Your task to perform on an android device: Go to network settings Image 0: 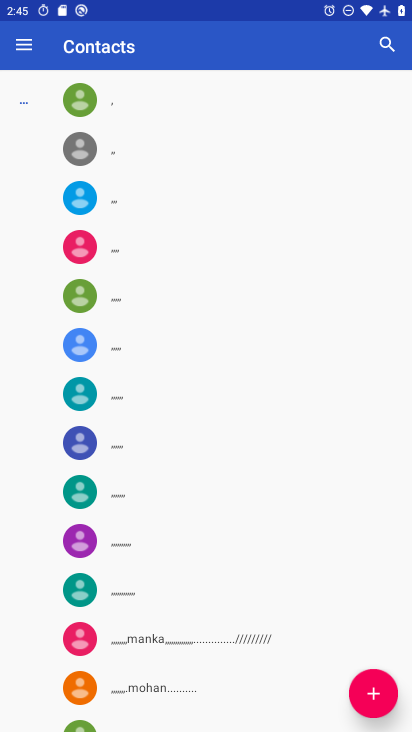
Step 0: press home button
Your task to perform on an android device: Go to network settings Image 1: 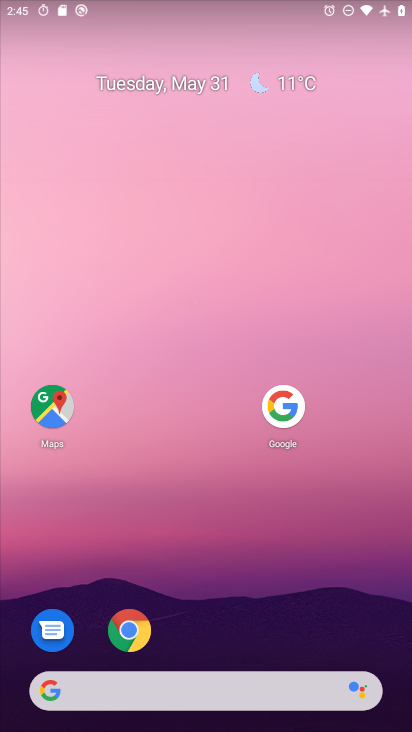
Step 1: drag from (132, 680) to (257, 93)
Your task to perform on an android device: Go to network settings Image 2: 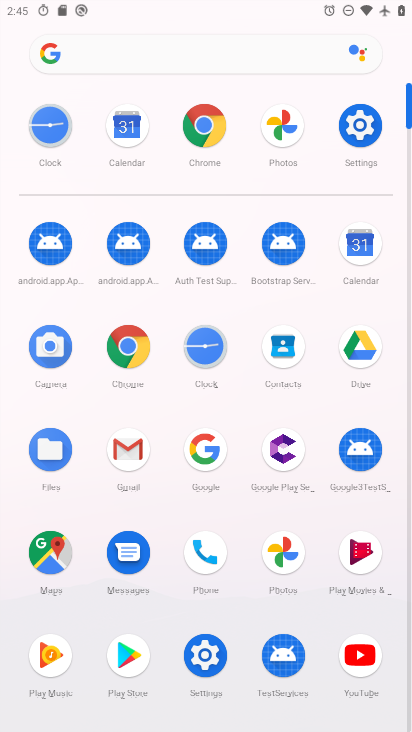
Step 2: click (358, 115)
Your task to perform on an android device: Go to network settings Image 3: 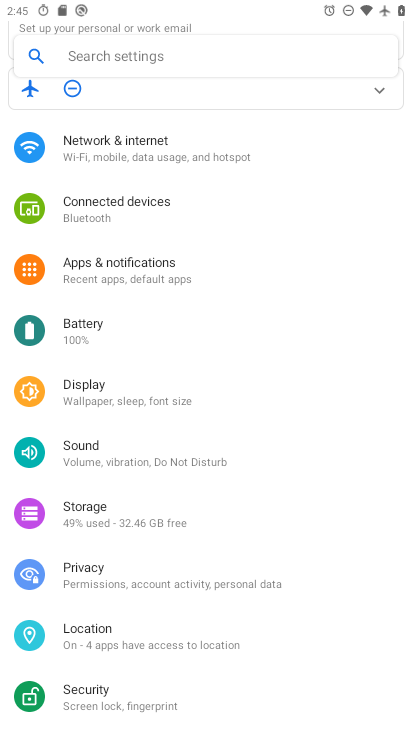
Step 3: click (134, 144)
Your task to perform on an android device: Go to network settings Image 4: 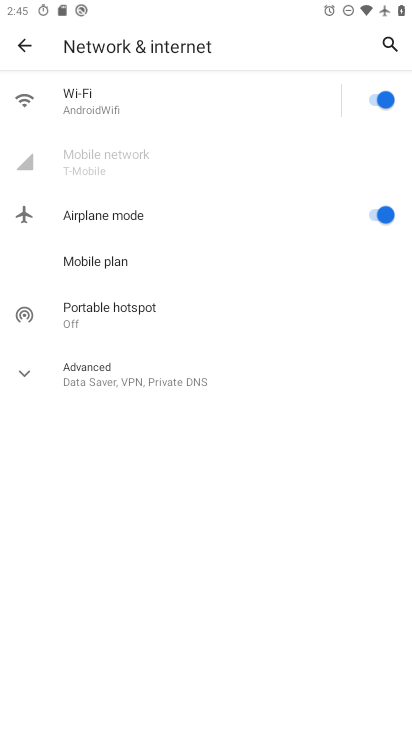
Step 4: task complete